Your task to perform on an android device: What's on my calendar today? Image 0: 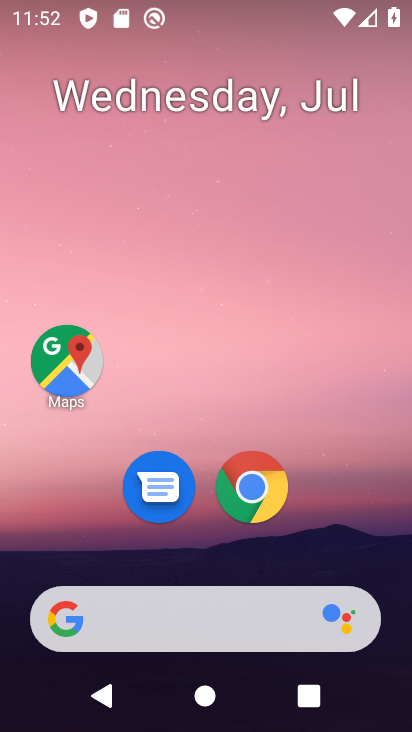
Step 0: drag from (214, 620) to (211, 173)
Your task to perform on an android device: What's on my calendar today? Image 1: 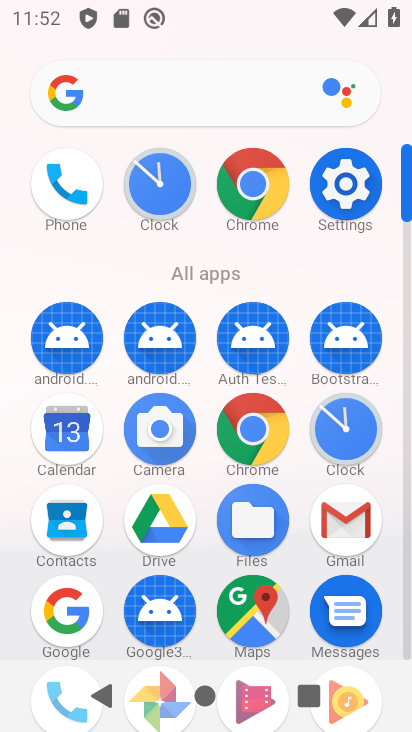
Step 1: click (65, 440)
Your task to perform on an android device: What's on my calendar today? Image 2: 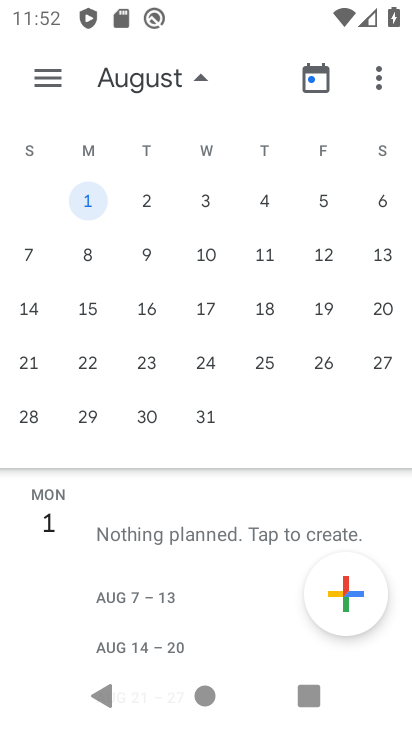
Step 2: drag from (57, 327) to (397, 271)
Your task to perform on an android device: What's on my calendar today? Image 3: 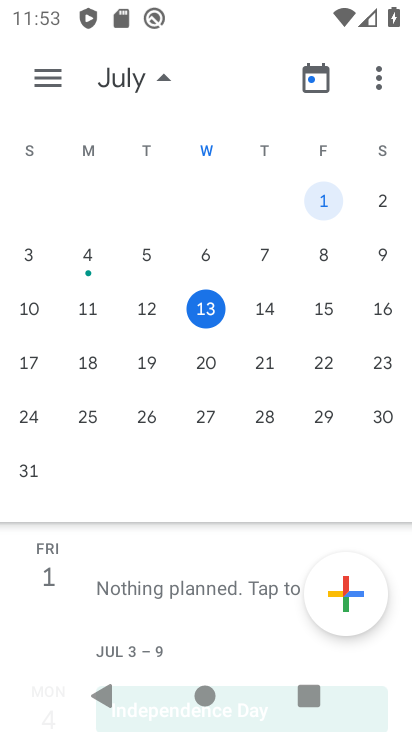
Step 3: click (211, 318)
Your task to perform on an android device: What's on my calendar today? Image 4: 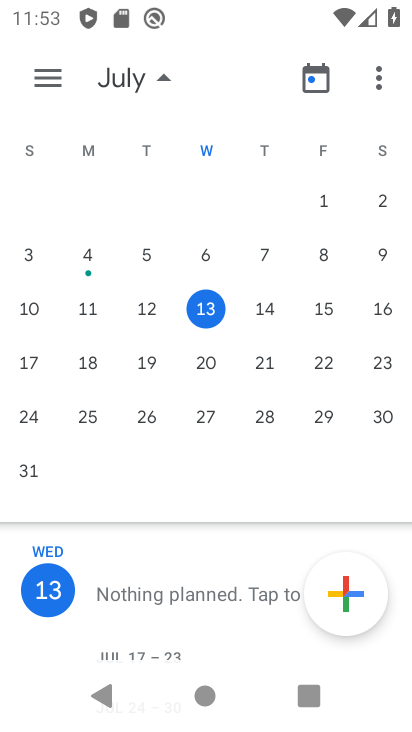
Step 4: task complete